Your task to perform on an android device: turn off smart reply in the gmail app Image 0: 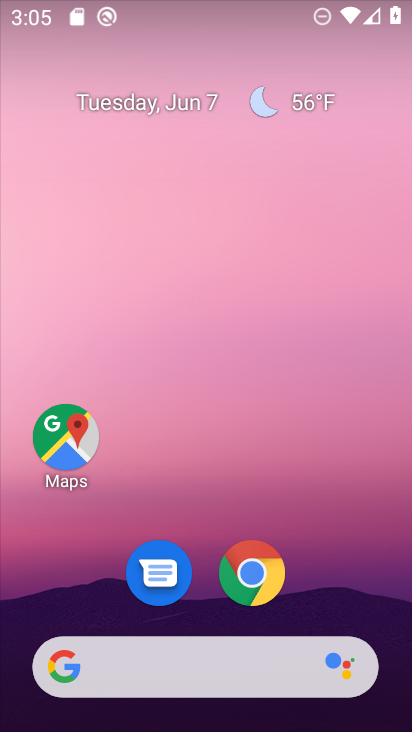
Step 0: drag from (350, 576) to (341, 18)
Your task to perform on an android device: turn off smart reply in the gmail app Image 1: 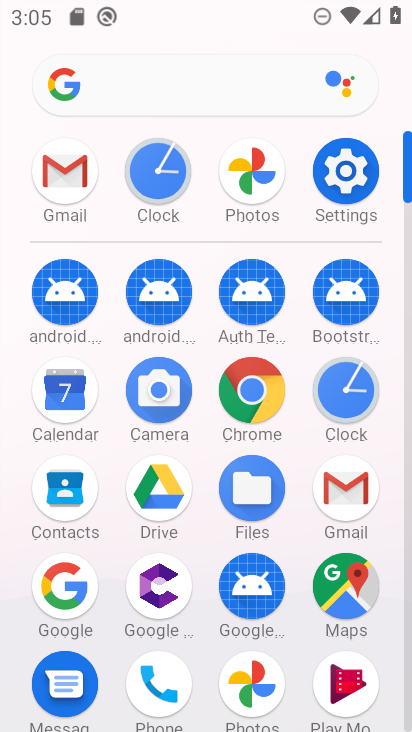
Step 1: click (355, 489)
Your task to perform on an android device: turn off smart reply in the gmail app Image 2: 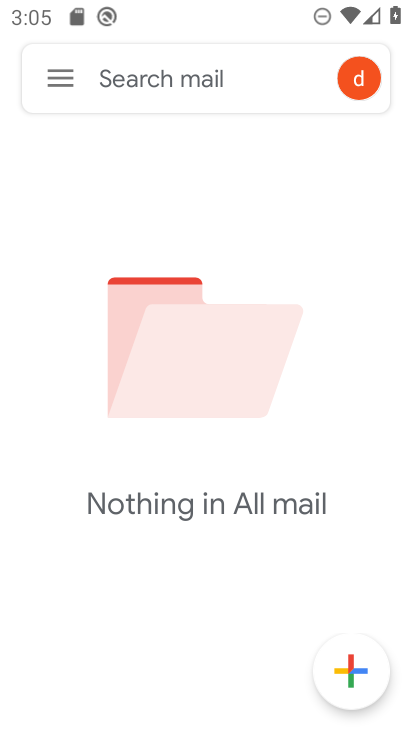
Step 2: click (53, 66)
Your task to perform on an android device: turn off smart reply in the gmail app Image 3: 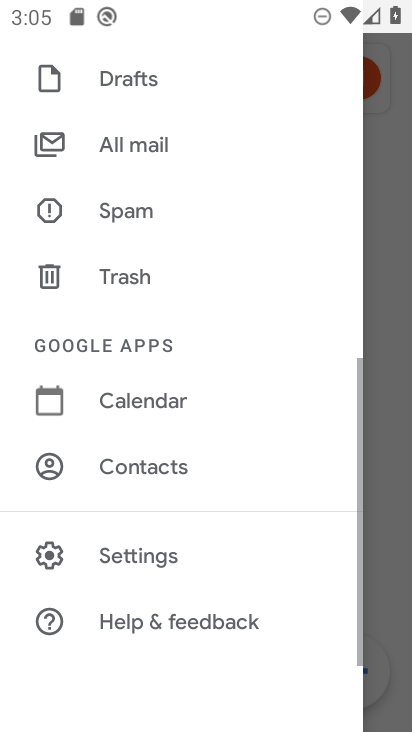
Step 3: click (184, 568)
Your task to perform on an android device: turn off smart reply in the gmail app Image 4: 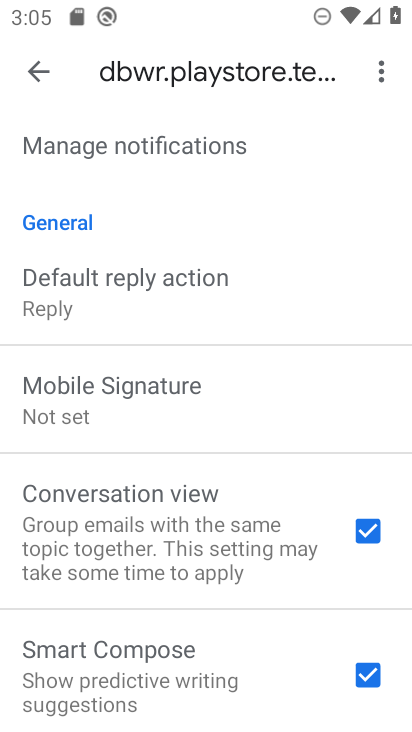
Step 4: drag from (219, 616) to (210, 234)
Your task to perform on an android device: turn off smart reply in the gmail app Image 5: 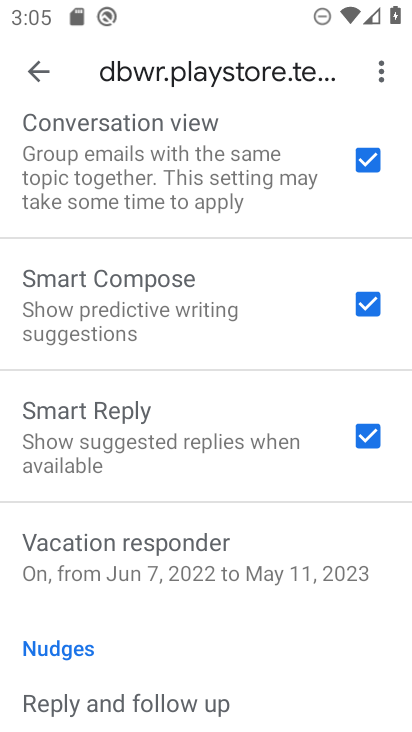
Step 5: click (383, 436)
Your task to perform on an android device: turn off smart reply in the gmail app Image 6: 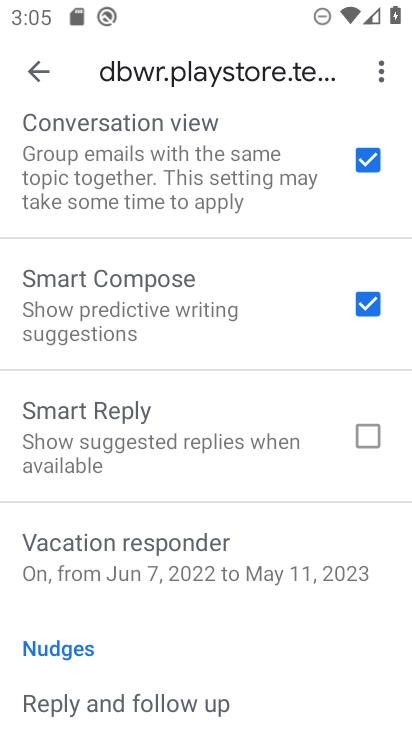
Step 6: task complete